Your task to perform on an android device: Go to Maps Image 0: 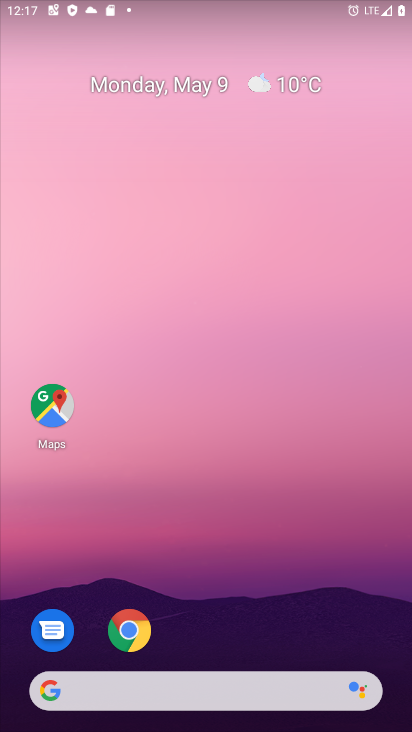
Step 0: drag from (361, 624) to (277, 15)
Your task to perform on an android device: Go to Maps Image 1: 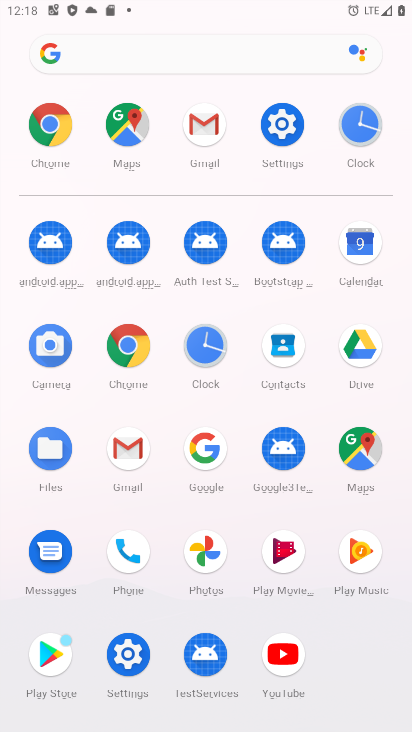
Step 1: click (368, 438)
Your task to perform on an android device: Go to Maps Image 2: 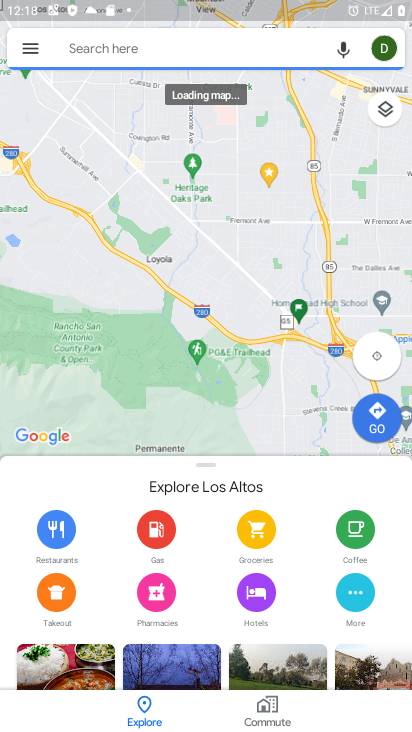
Step 2: task complete